Your task to perform on an android device: change the clock display to show seconds Image 0: 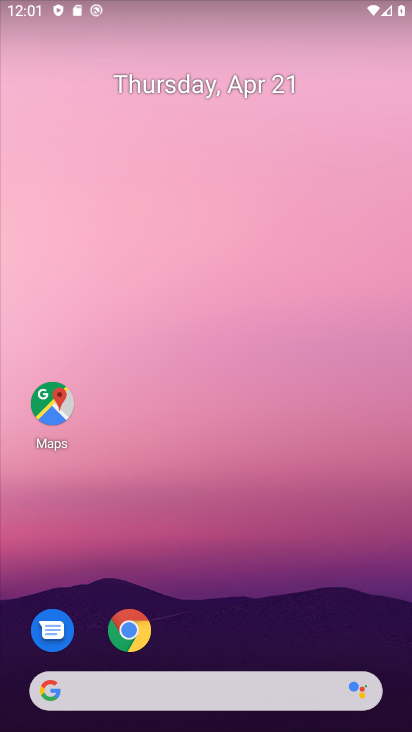
Step 0: drag from (279, 605) to (269, 338)
Your task to perform on an android device: change the clock display to show seconds Image 1: 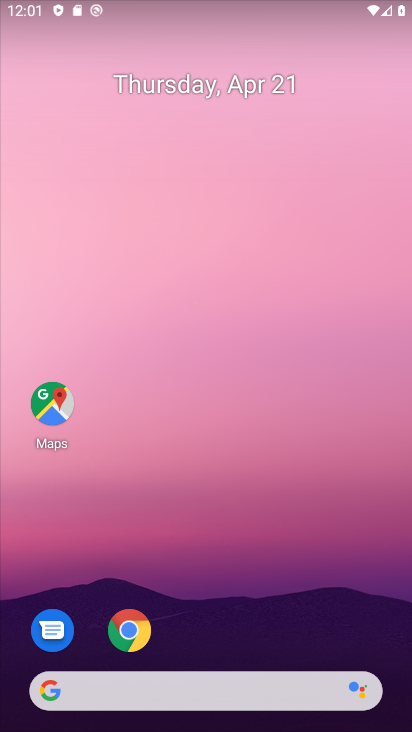
Step 1: drag from (265, 601) to (245, 284)
Your task to perform on an android device: change the clock display to show seconds Image 2: 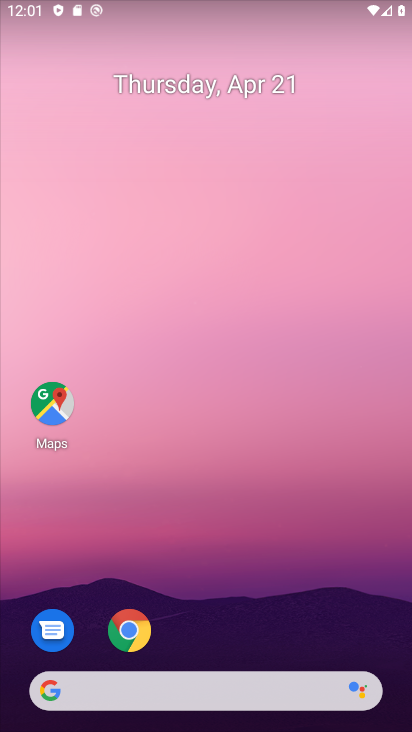
Step 2: drag from (257, 615) to (248, 310)
Your task to perform on an android device: change the clock display to show seconds Image 3: 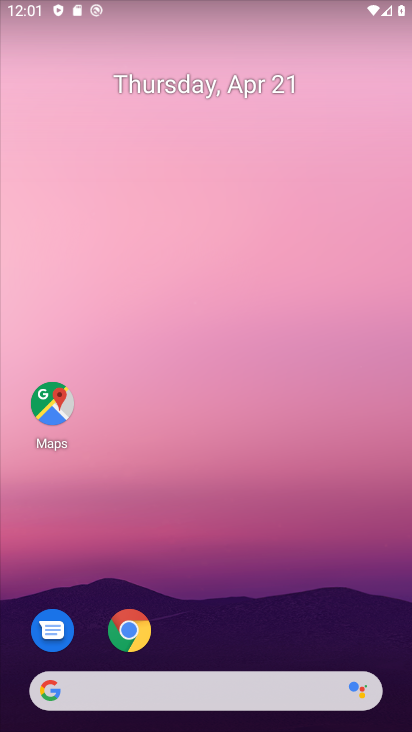
Step 3: drag from (246, 599) to (228, 286)
Your task to perform on an android device: change the clock display to show seconds Image 4: 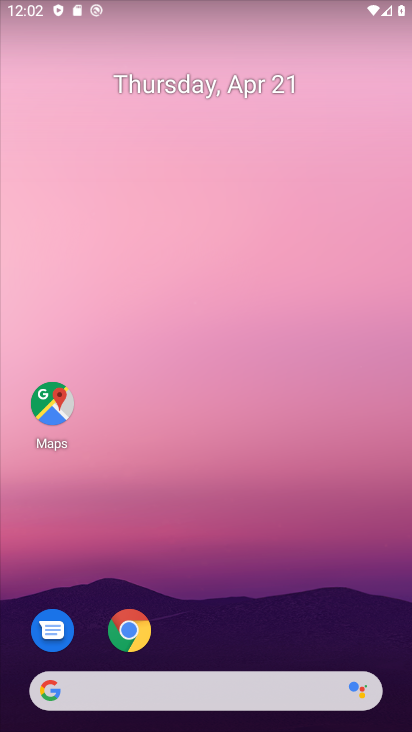
Step 4: drag from (237, 566) to (203, 63)
Your task to perform on an android device: change the clock display to show seconds Image 5: 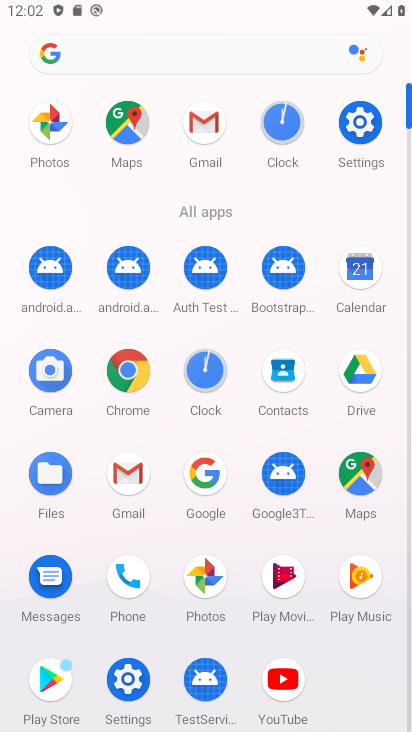
Step 5: click (288, 131)
Your task to perform on an android device: change the clock display to show seconds Image 6: 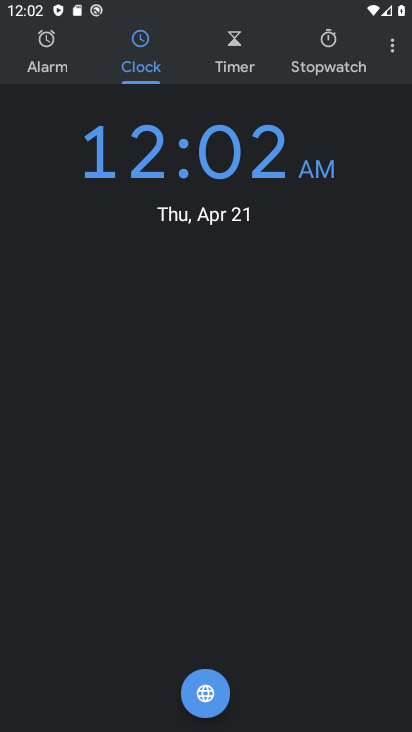
Step 6: click (386, 53)
Your task to perform on an android device: change the clock display to show seconds Image 7: 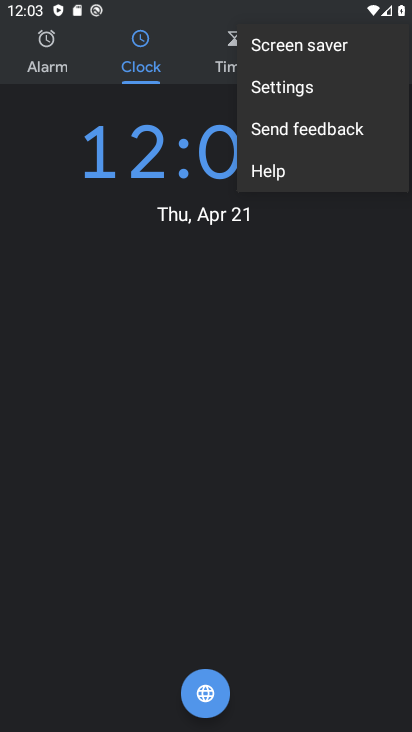
Step 7: click (307, 83)
Your task to perform on an android device: change the clock display to show seconds Image 8: 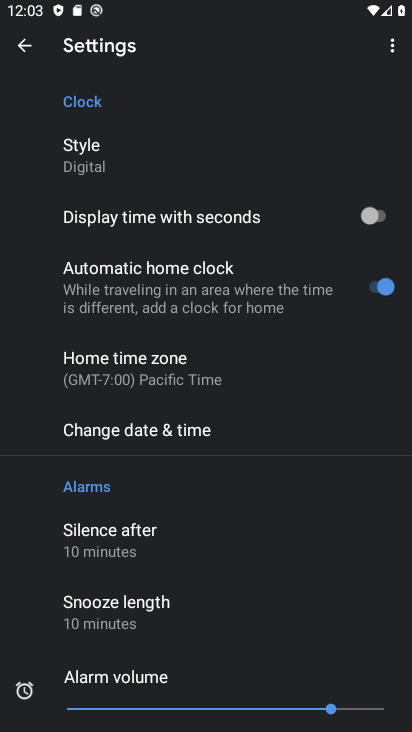
Step 8: click (168, 434)
Your task to perform on an android device: change the clock display to show seconds Image 9: 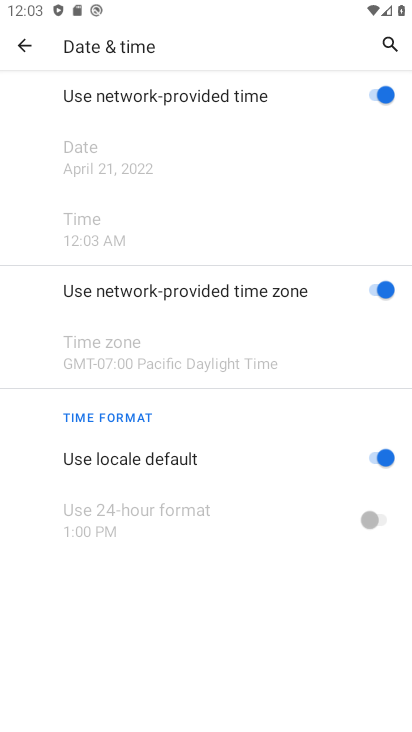
Step 9: click (34, 49)
Your task to perform on an android device: change the clock display to show seconds Image 10: 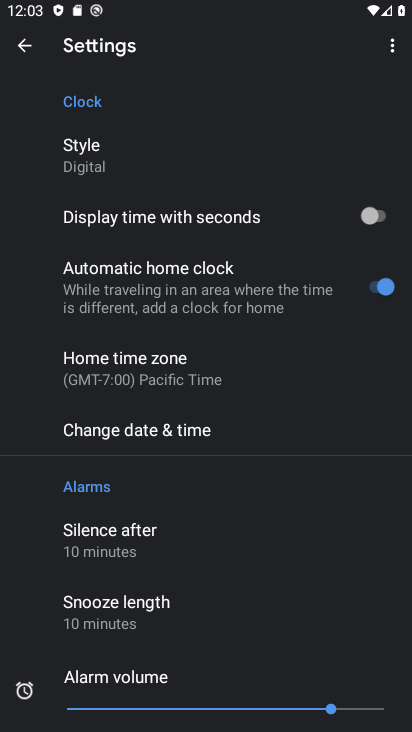
Step 10: click (257, 229)
Your task to perform on an android device: change the clock display to show seconds Image 11: 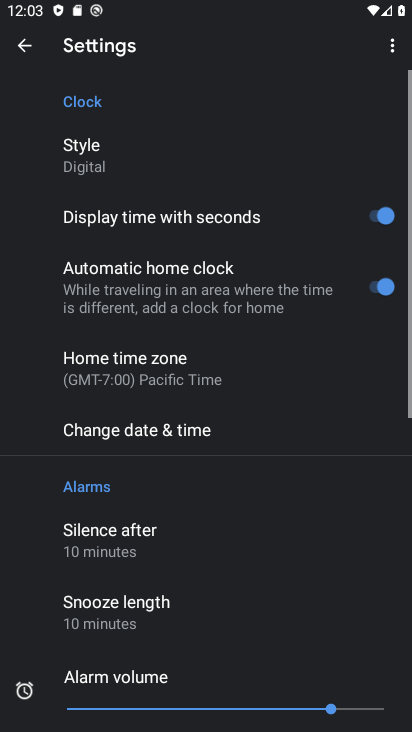
Step 11: task complete